Your task to perform on an android device: check google app version Image 0: 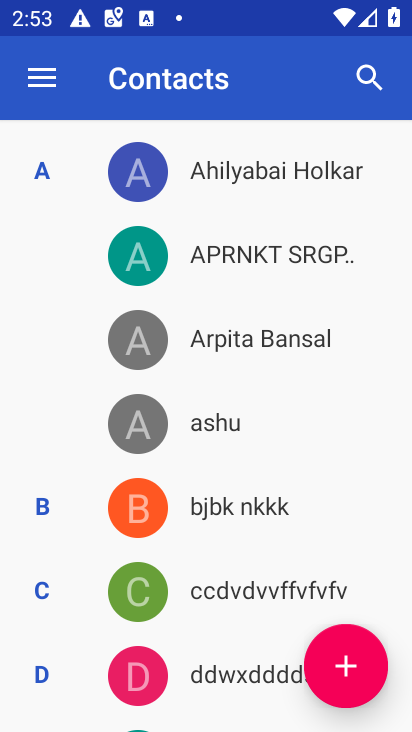
Step 0: press home button
Your task to perform on an android device: check google app version Image 1: 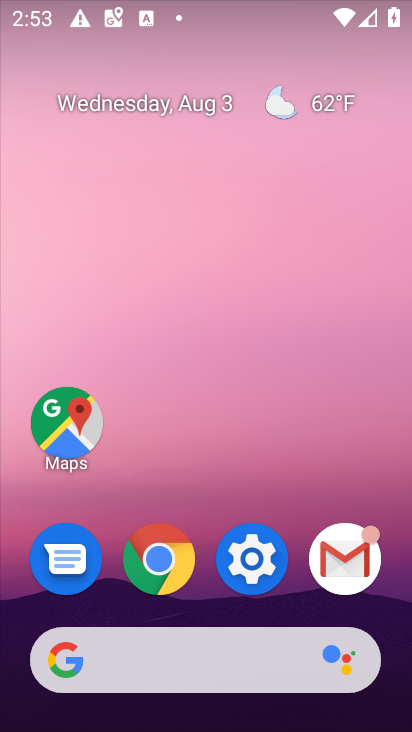
Step 1: drag from (216, 700) to (293, 177)
Your task to perform on an android device: check google app version Image 2: 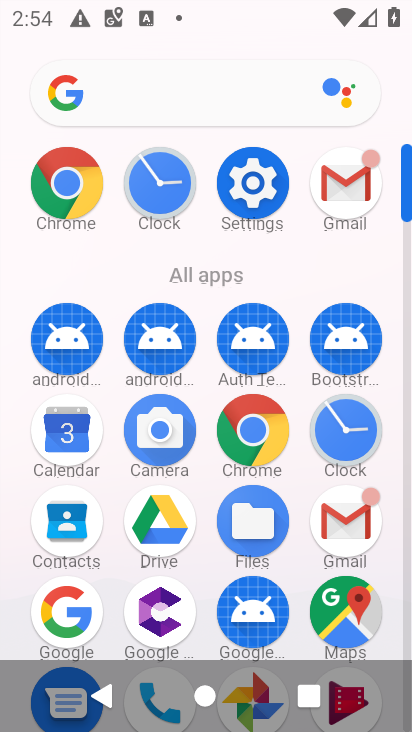
Step 2: click (78, 186)
Your task to perform on an android device: check google app version Image 3: 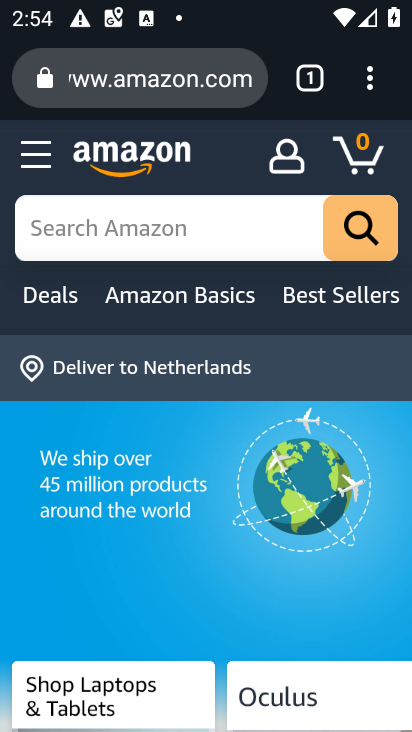
Step 3: click (374, 81)
Your task to perform on an android device: check google app version Image 4: 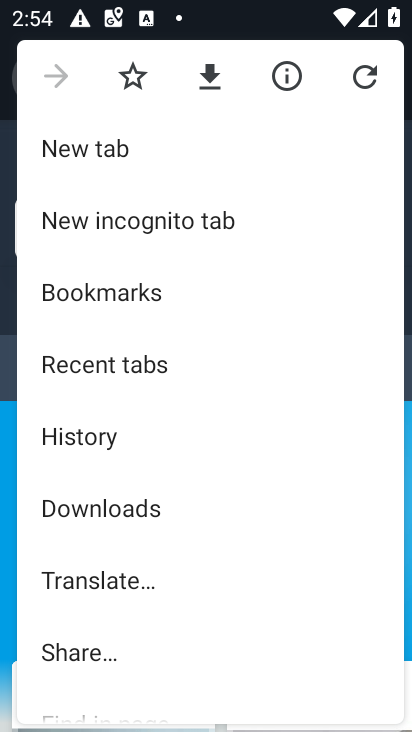
Step 4: drag from (148, 657) to (155, 367)
Your task to perform on an android device: check google app version Image 5: 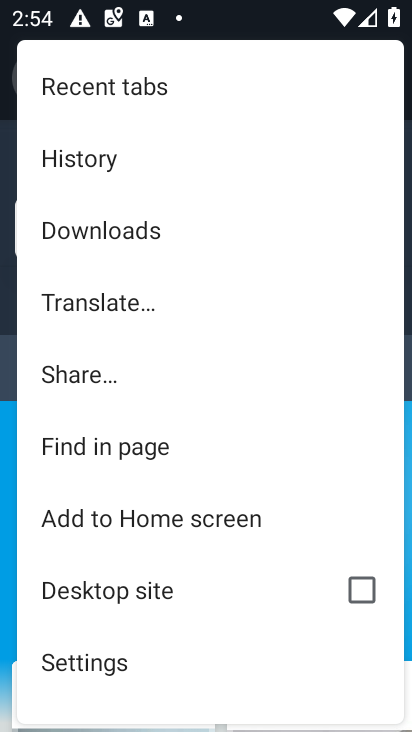
Step 5: click (117, 673)
Your task to perform on an android device: check google app version Image 6: 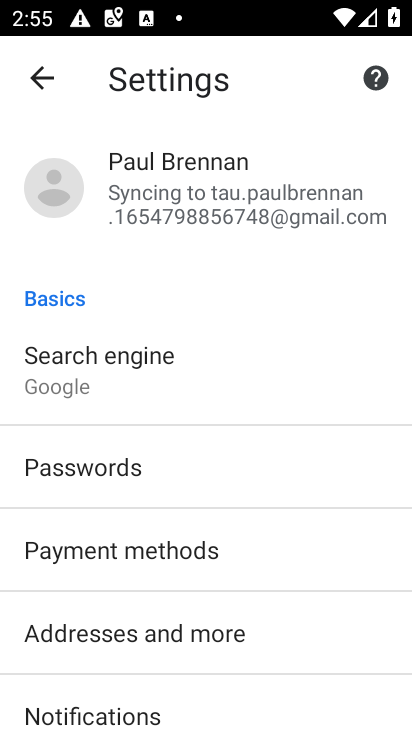
Step 6: drag from (132, 684) to (164, 501)
Your task to perform on an android device: check google app version Image 7: 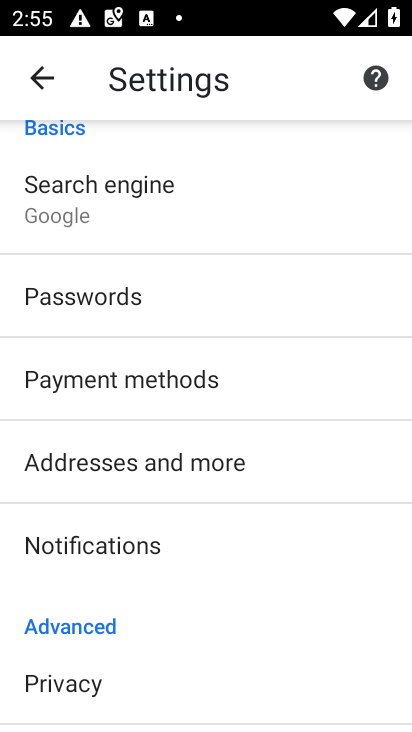
Step 7: drag from (145, 590) to (193, 411)
Your task to perform on an android device: check google app version Image 8: 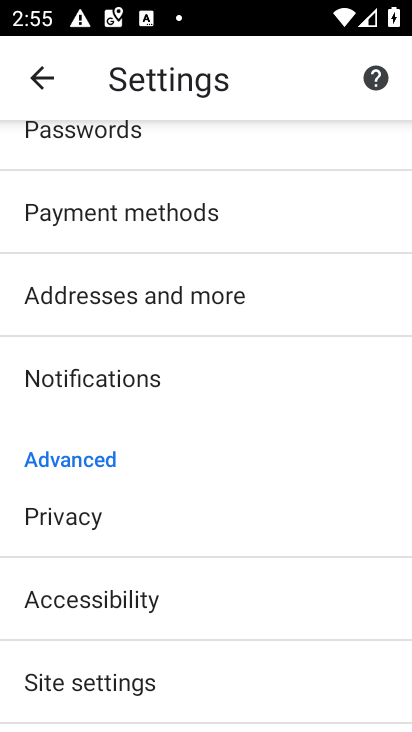
Step 8: drag from (120, 678) to (141, 319)
Your task to perform on an android device: check google app version Image 9: 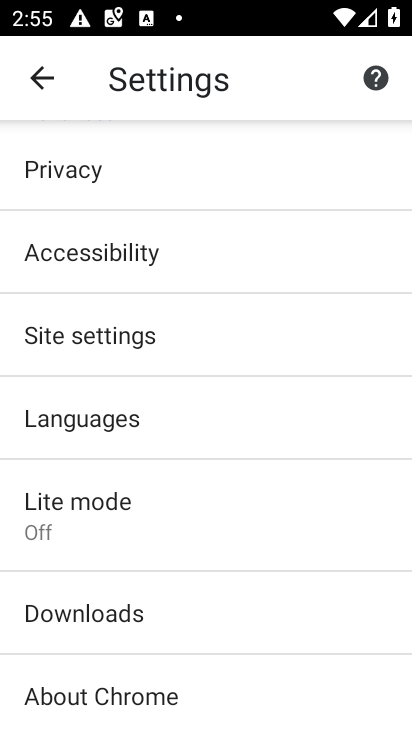
Step 9: click (105, 685)
Your task to perform on an android device: check google app version Image 10: 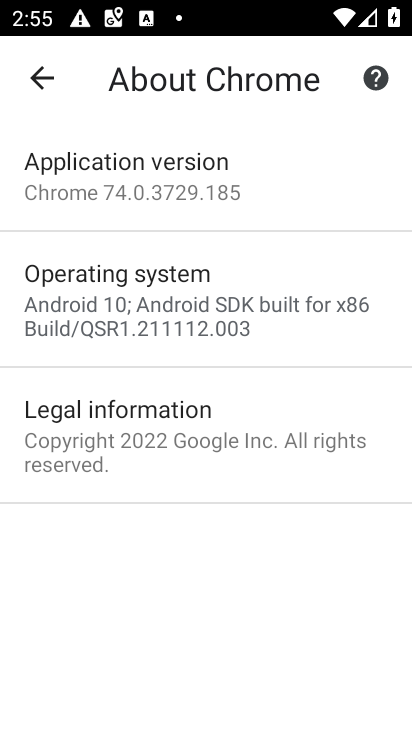
Step 10: click (187, 179)
Your task to perform on an android device: check google app version Image 11: 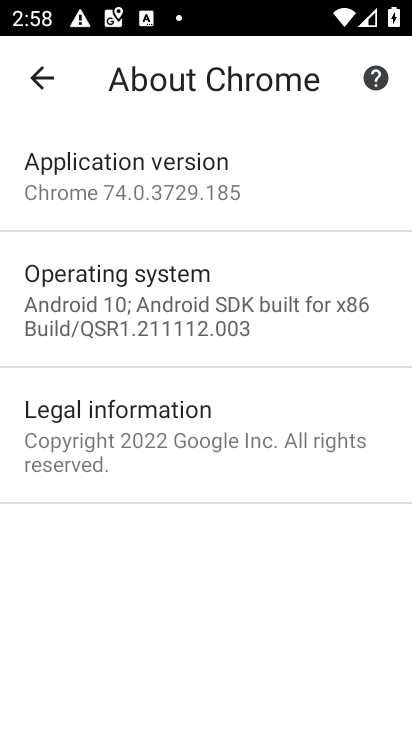
Step 11: task complete